Your task to perform on an android device: Go to calendar. Show me events next week Image 0: 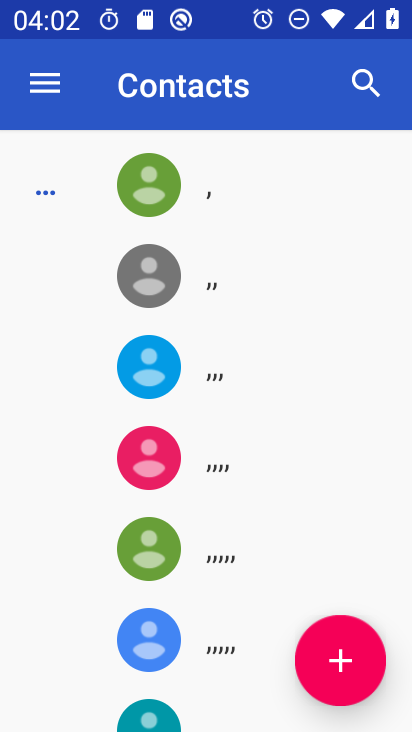
Step 0: press home button
Your task to perform on an android device: Go to calendar. Show me events next week Image 1: 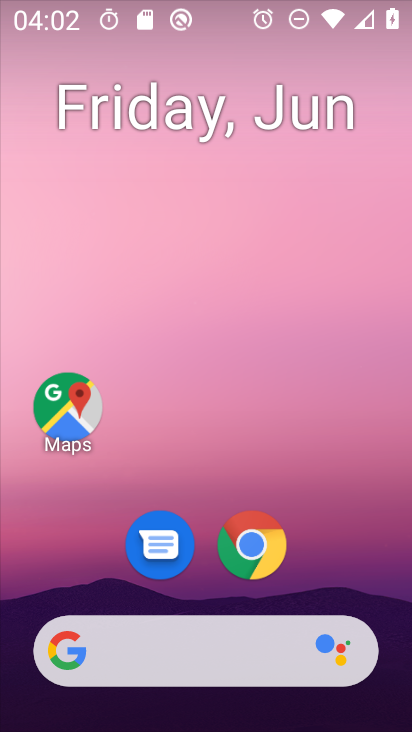
Step 1: drag from (339, 587) to (293, 51)
Your task to perform on an android device: Go to calendar. Show me events next week Image 2: 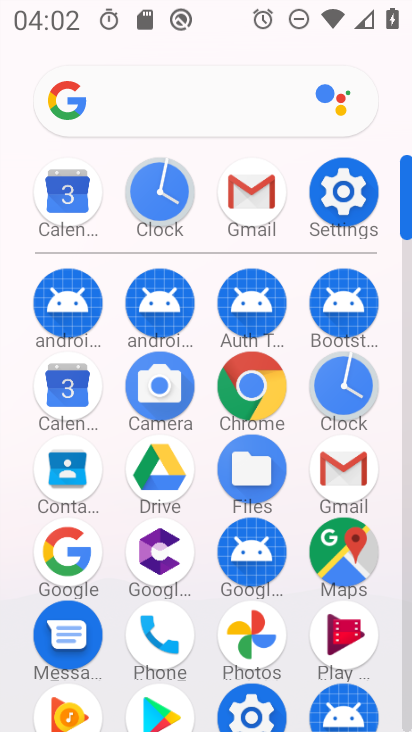
Step 2: click (80, 377)
Your task to perform on an android device: Go to calendar. Show me events next week Image 3: 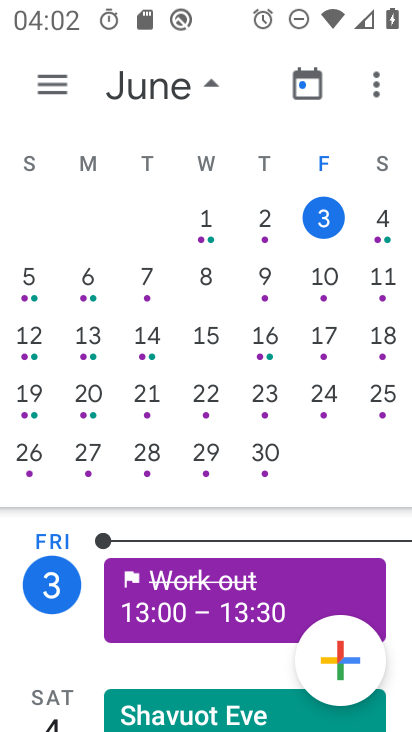
Step 3: click (36, 290)
Your task to perform on an android device: Go to calendar. Show me events next week Image 4: 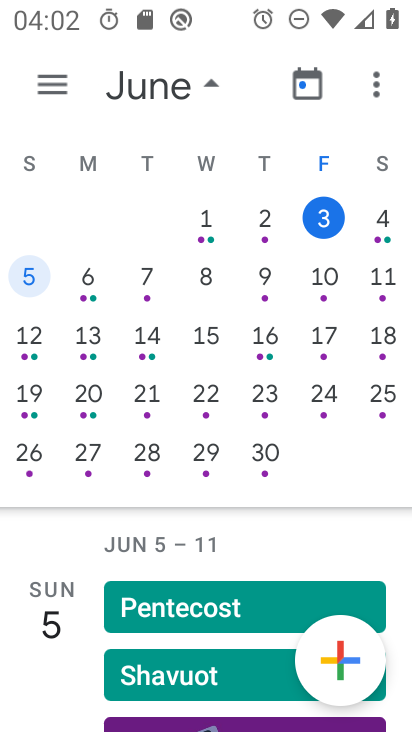
Step 4: task complete